Your task to perform on an android device: Add usb-a to usb-b to the cart on bestbuy Image 0: 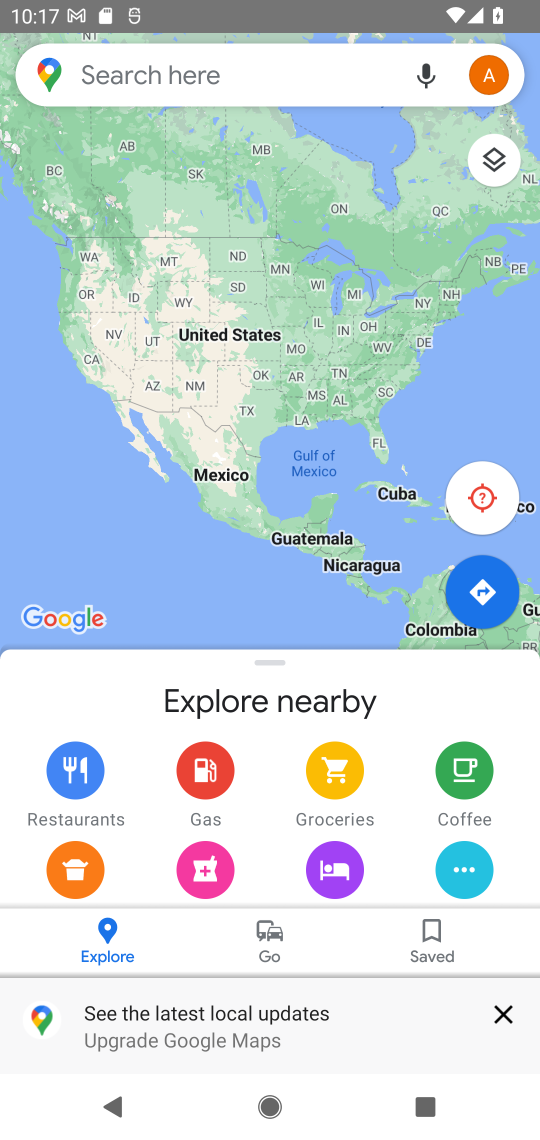
Step 0: press home button
Your task to perform on an android device: Add usb-a to usb-b to the cart on bestbuy Image 1: 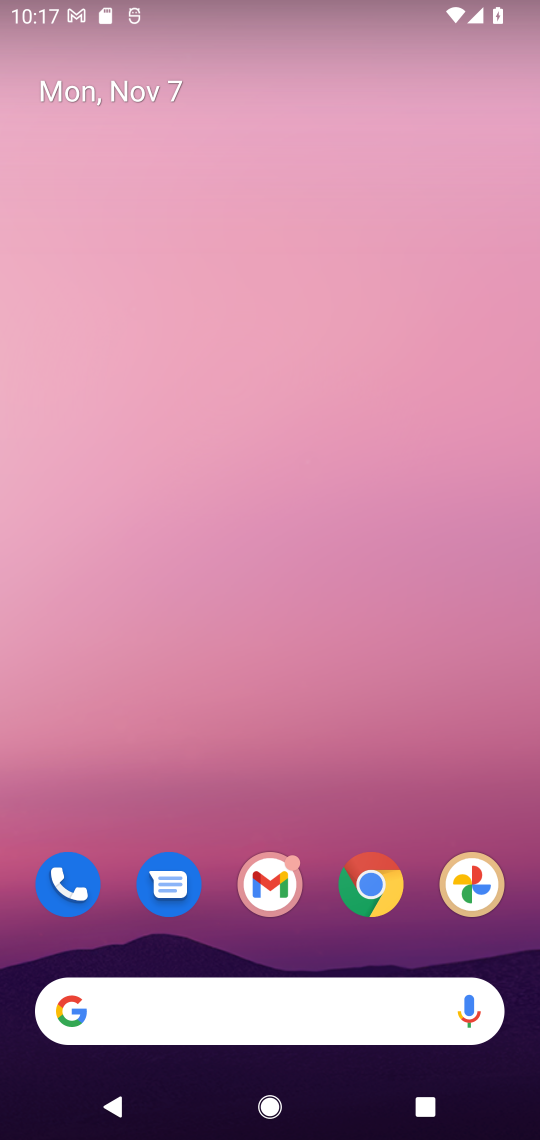
Step 1: click (372, 887)
Your task to perform on an android device: Add usb-a to usb-b to the cart on bestbuy Image 2: 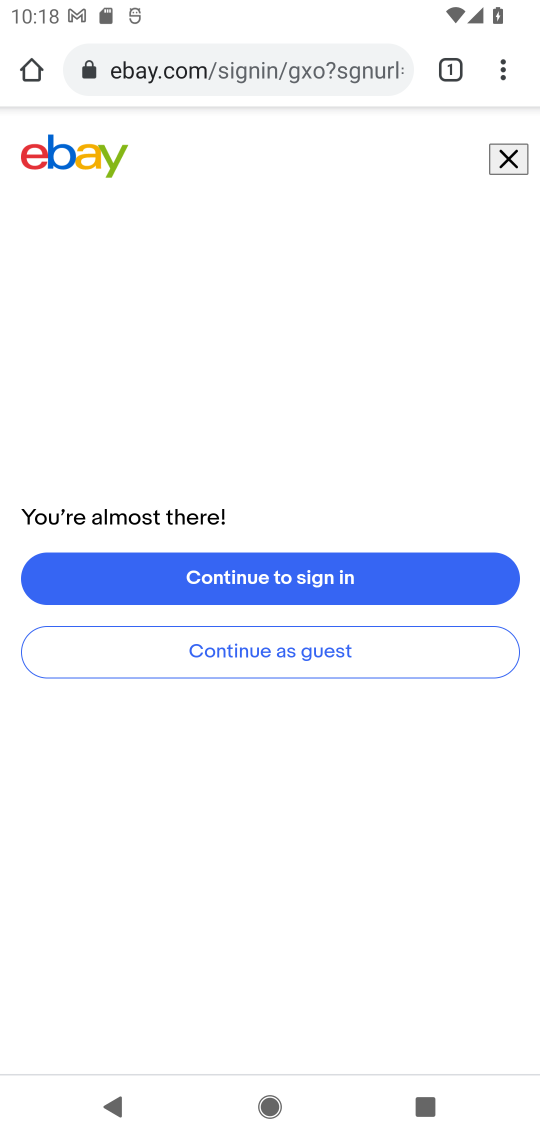
Step 2: click (338, 68)
Your task to perform on an android device: Add usb-a to usb-b to the cart on bestbuy Image 3: 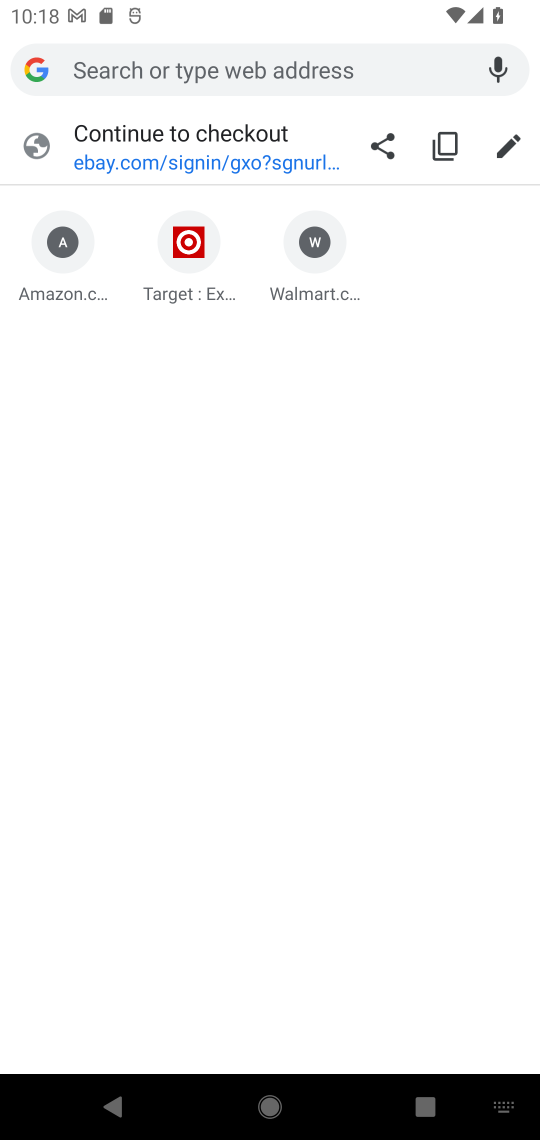
Step 3: type "bestbuy"
Your task to perform on an android device: Add usb-a to usb-b to the cart on bestbuy Image 4: 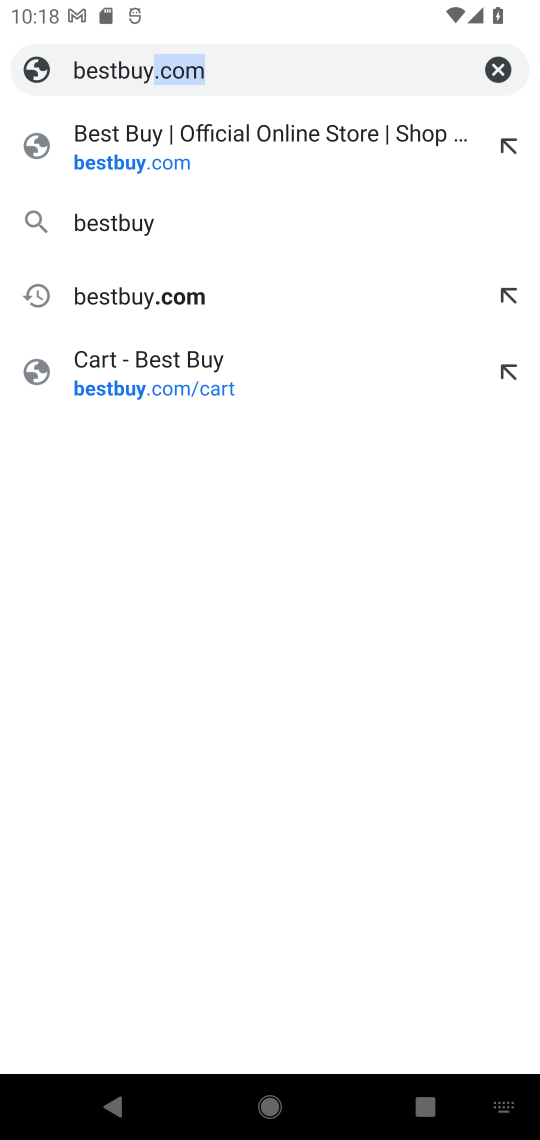
Step 4: click (166, 286)
Your task to perform on an android device: Add usb-a to usb-b to the cart on bestbuy Image 5: 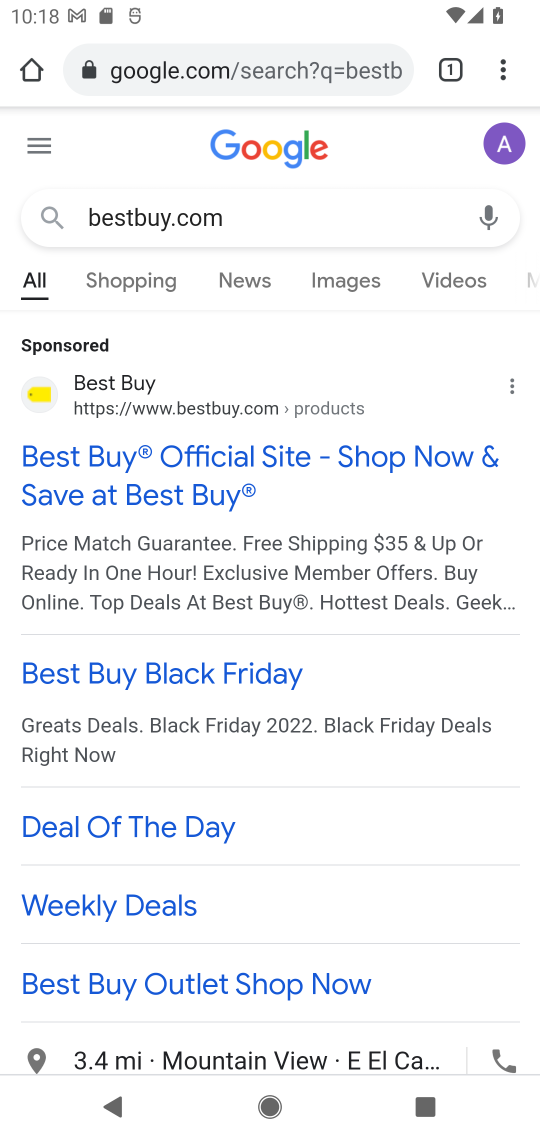
Step 5: click (219, 399)
Your task to perform on an android device: Add usb-a to usb-b to the cart on bestbuy Image 6: 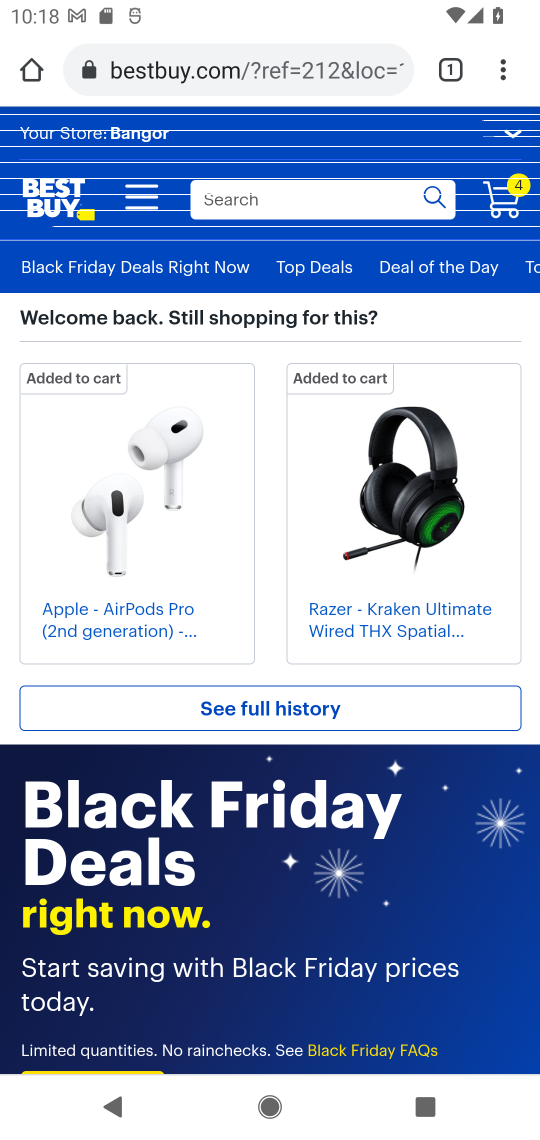
Step 6: click (312, 194)
Your task to perform on an android device: Add usb-a to usb-b to the cart on bestbuy Image 7: 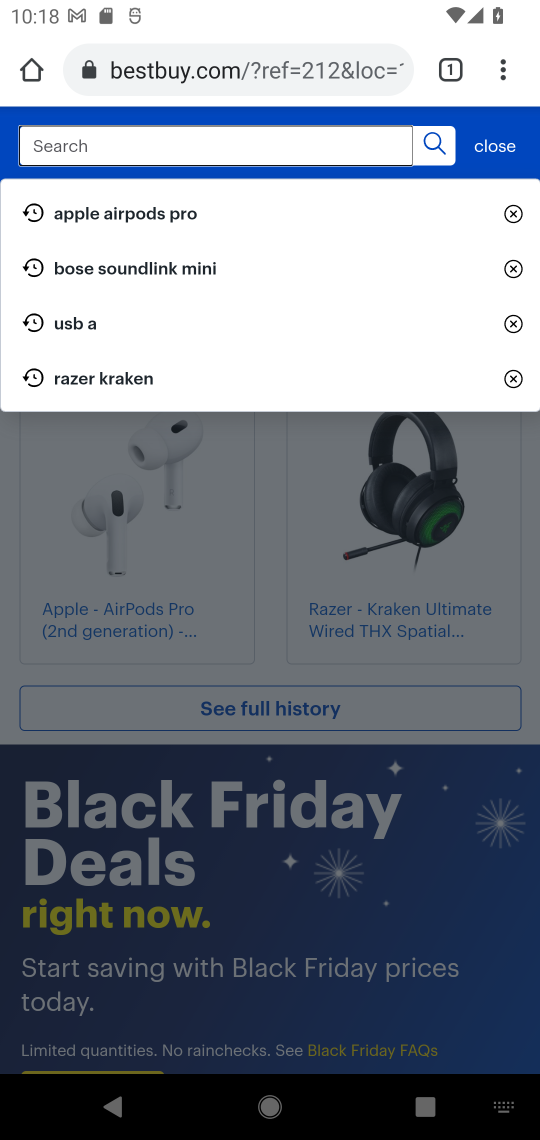
Step 7: type "usb-a to usb-b"
Your task to perform on an android device: Add usb-a to usb-b to the cart on bestbuy Image 8: 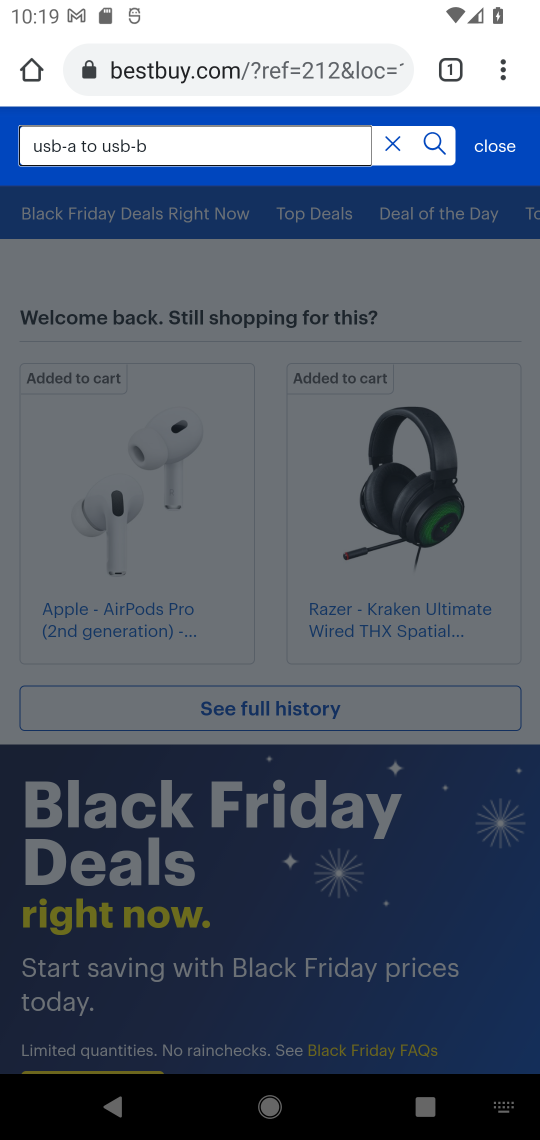
Step 8: click (353, 465)
Your task to perform on an android device: Add usb-a to usb-b to the cart on bestbuy Image 9: 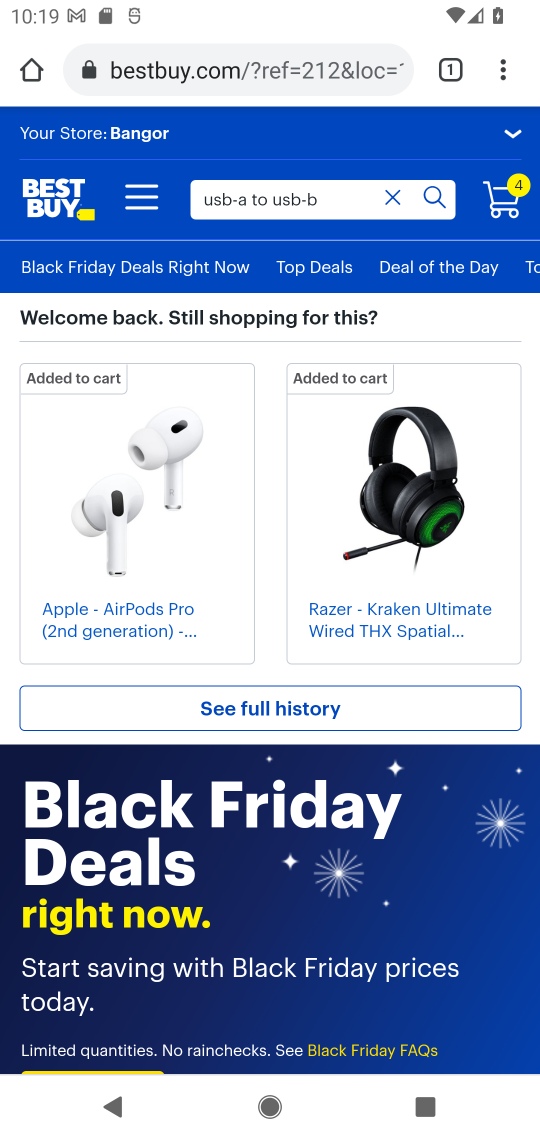
Step 9: task complete